Your task to perform on an android device: Open the web browser Image 0: 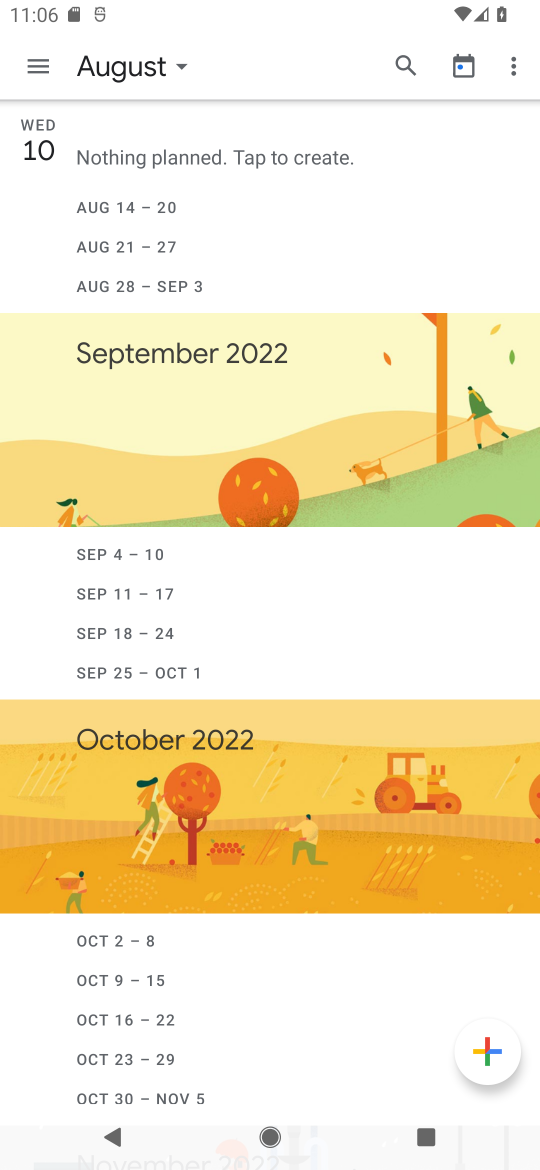
Step 0: press home button
Your task to perform on an android device: Open the web browser Image 1: 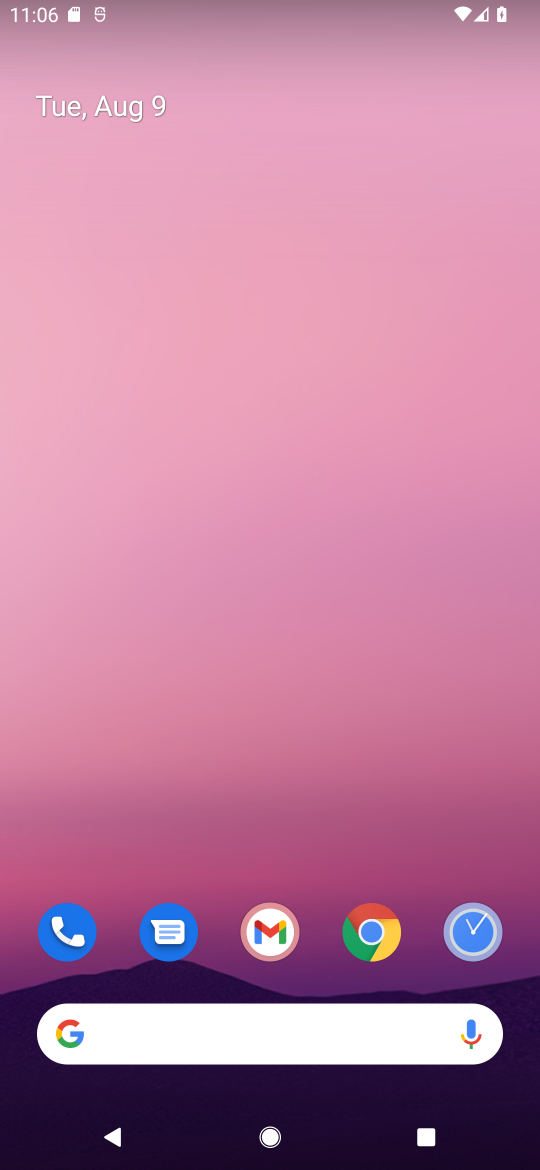
Step 1: click (372, 933)
Your task to perform on an android device: Open the web browser Image 2: 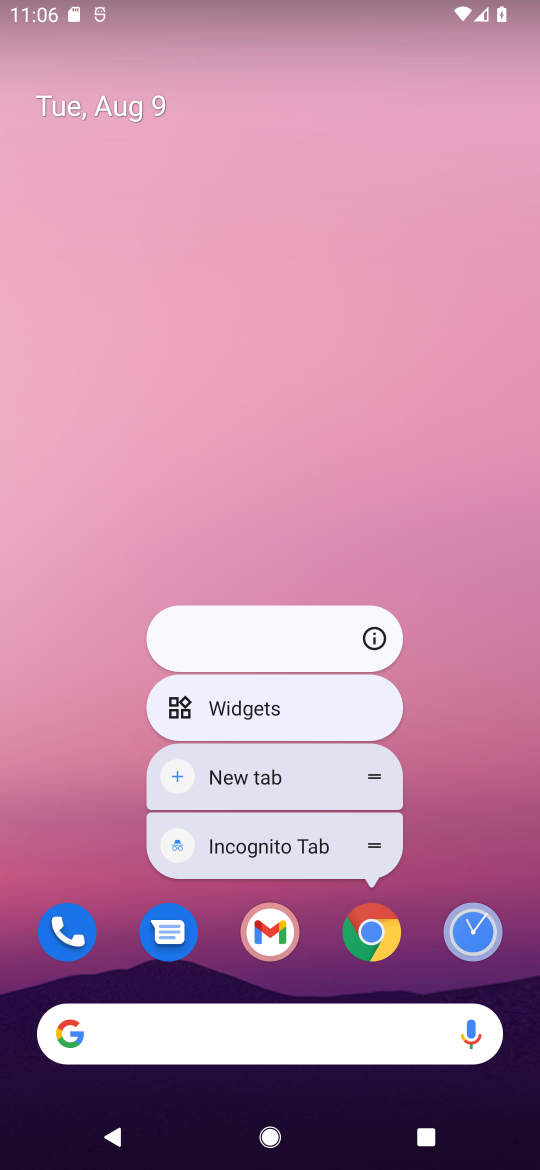
Step 2: click (377, 924)
Your task to perform on an android device: Open the web browser Image 3: 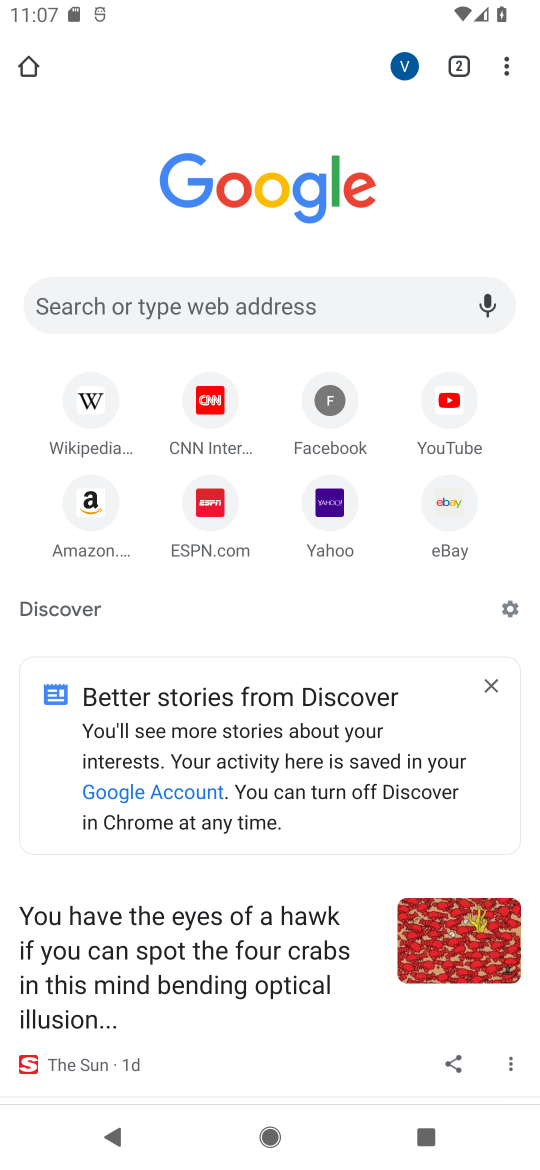
Step 3: task complete